Your task to perform on an android device: check battery use Image 0: 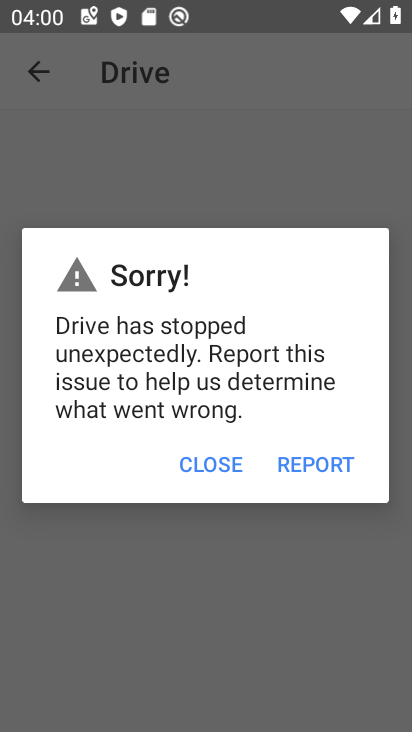
Step 0: press home button
Your task to perform on an android device: check battery use Image 1: 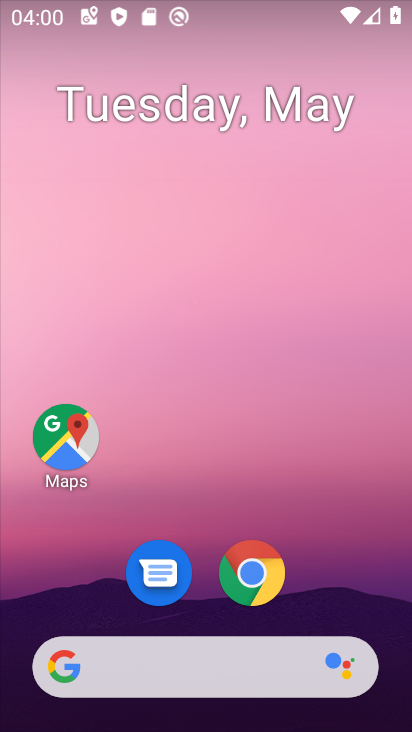
Step 1: drag from (181, 523) to (249, 22)
Your task to perform on an android device: check battery use Image 2: 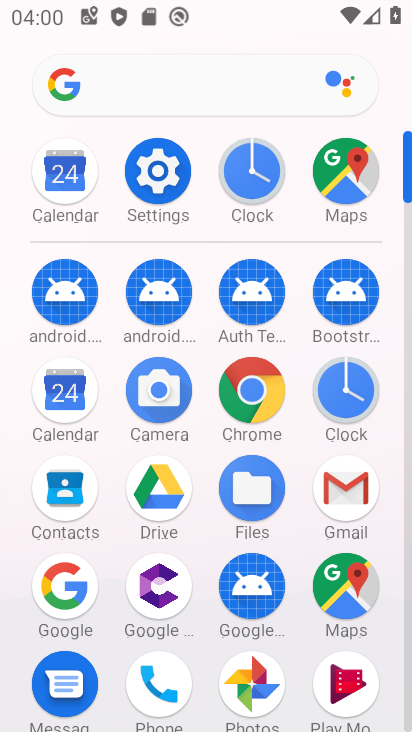
Step 2: click (159, 167)
Your task to perform on an android device: check battery use Image 3: 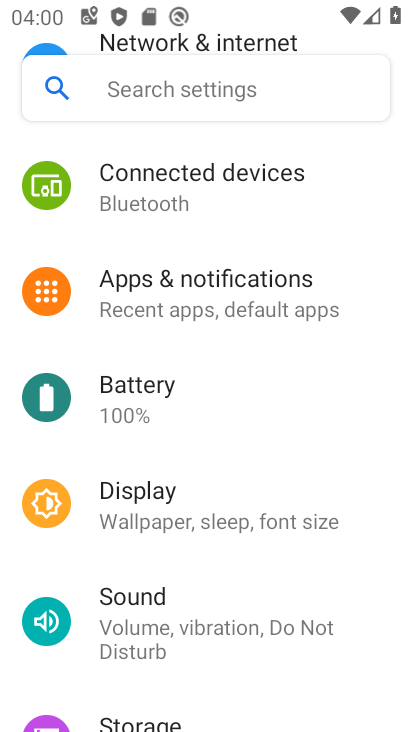
Step 3: click (139, 403)
Your task to perform on an android device: check battery use Image 4: 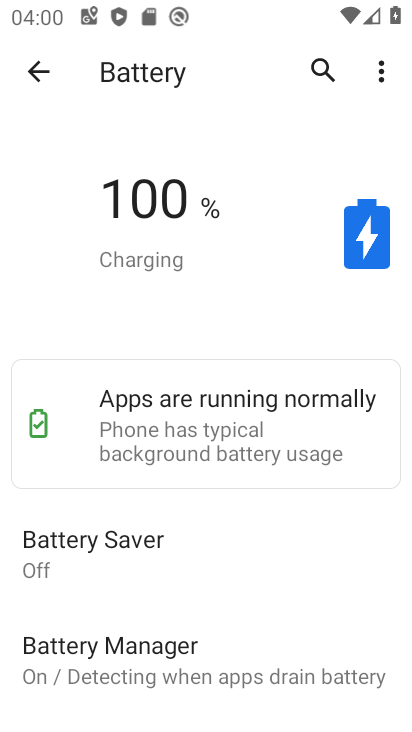
Step 4: click (380, 66)
Your task to perform on an android device: check battery use Image 5: 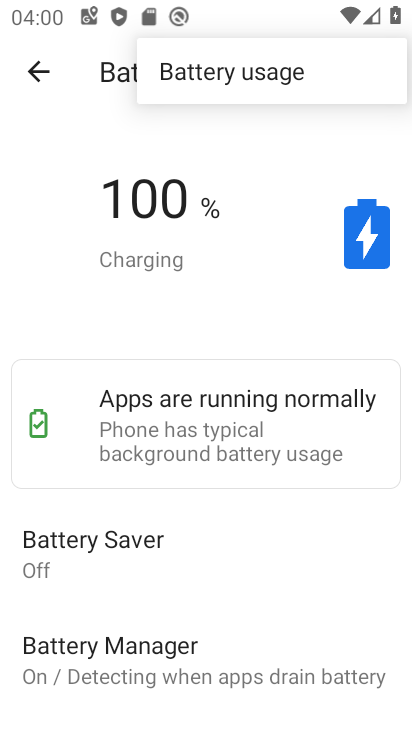
Step 5: click (286, 79)
Your task to perform on an android device: check battery use Image 6: 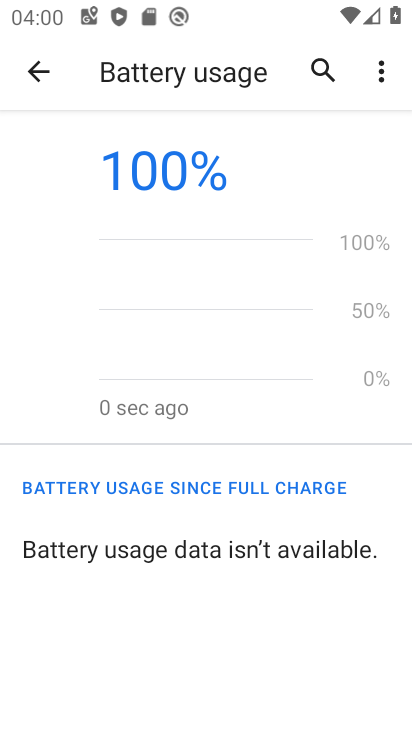
Step 6: task complete